Your task to perform on an android device: clear history in the chrome app Image 0: 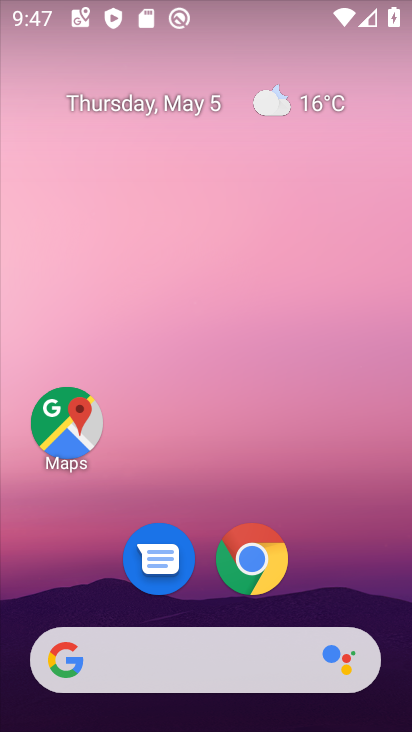
Step 0: click (240, 561)
Your task to perform on an android device: clear history in the chrome app Image 1: 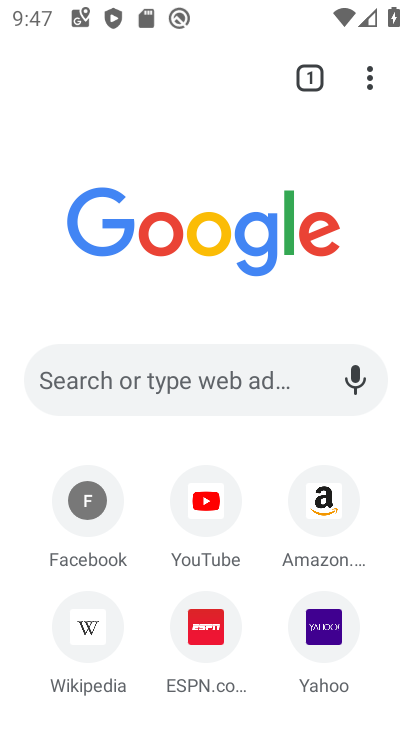
Step 1: click (375, 95)
Your task to perform on an android device: clear history in the chrome app Image 2: 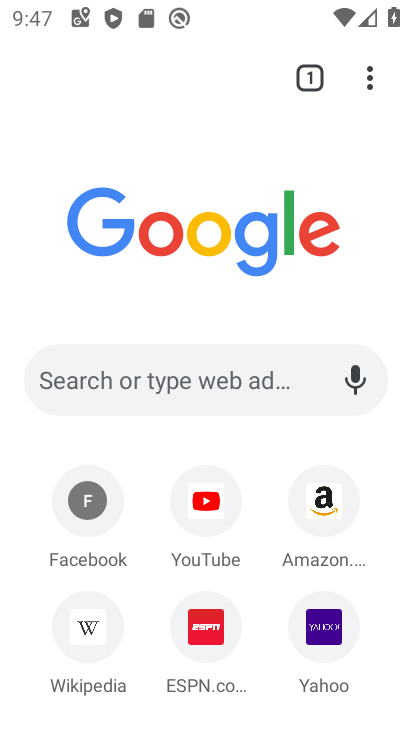
Step 2: click (359, 72)
Your task to perform on an android device: clear history in the chrome app Image 3: 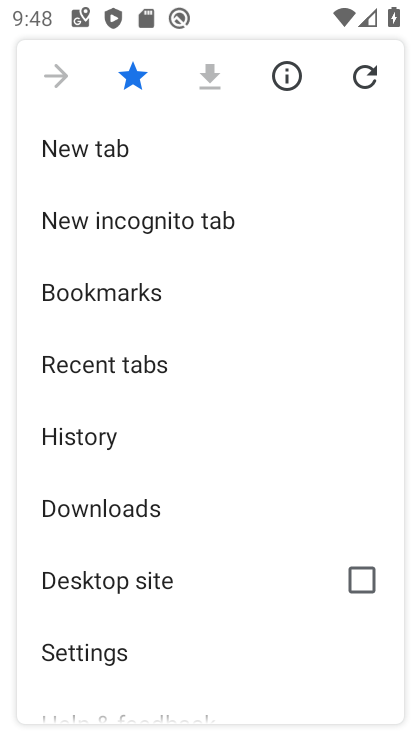
Step 3: click (97, 442)
Your task to perform on an android device: clear history in the chrome app Image 4: 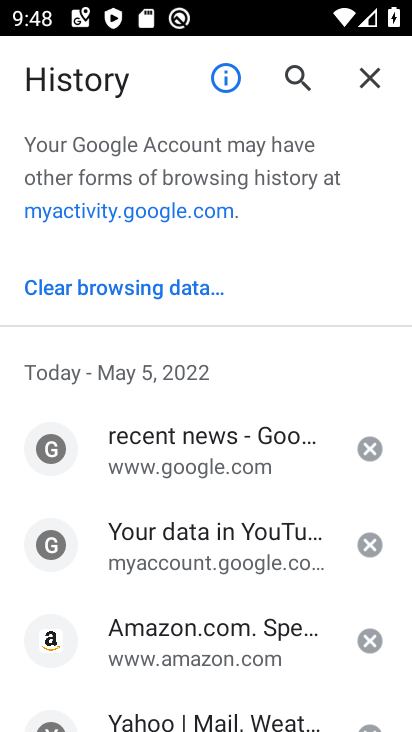
Step 4: click (86, 288)
Your task to perform on an android device: clear history in the chrome app Image 5: 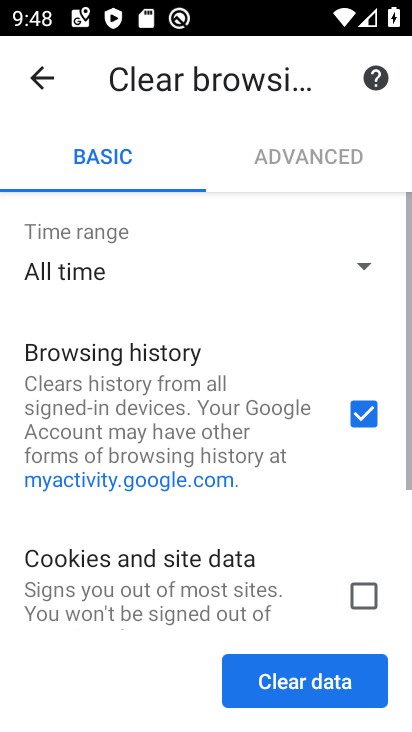
Step 5: drag from (278, 521) to (296, 173)
Your task to perform on an android device: clear history in the chrome app Image 6: 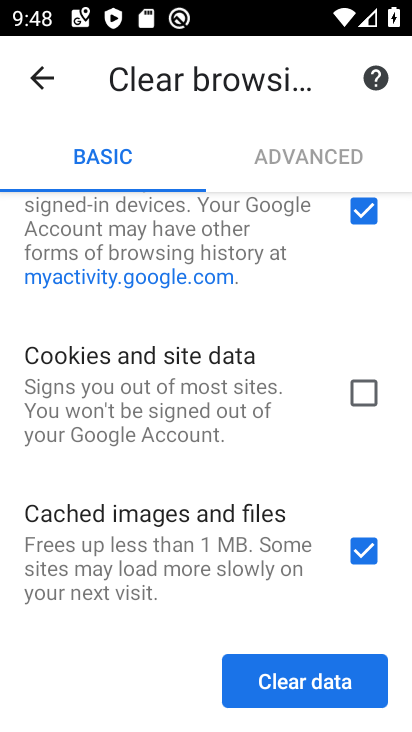
Step 6: click (340, 559)
Your task to perform on an android device: clear history in the chrome app Image 7: 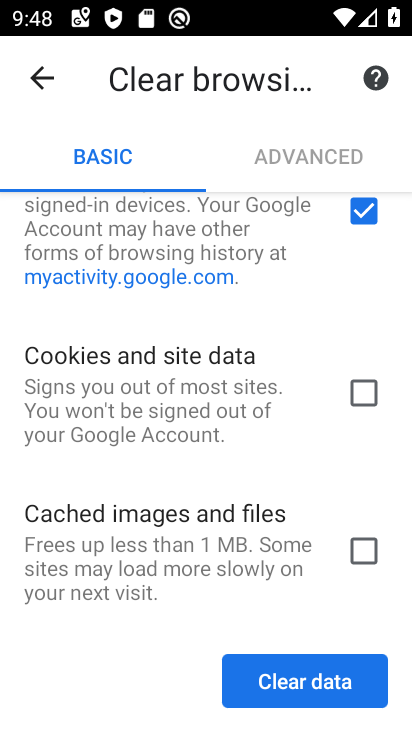
Step 7: click (294, 689)
Your task to perform on an android device: clear history in the chrome app Image 8: 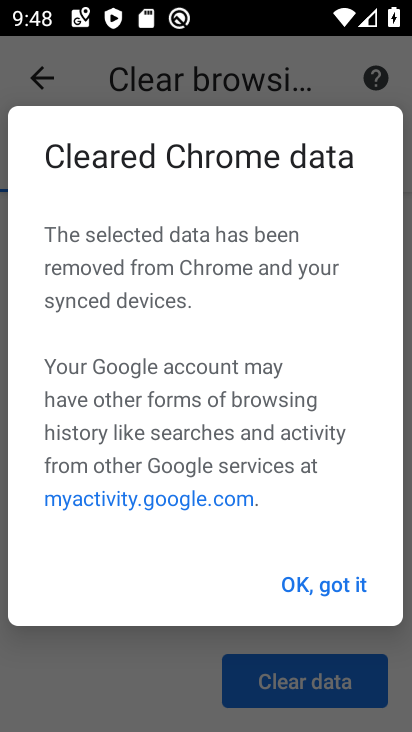
Step 8: click (323, 597)
Your task to perform on an android device: clear history in the chrome app Image 9: 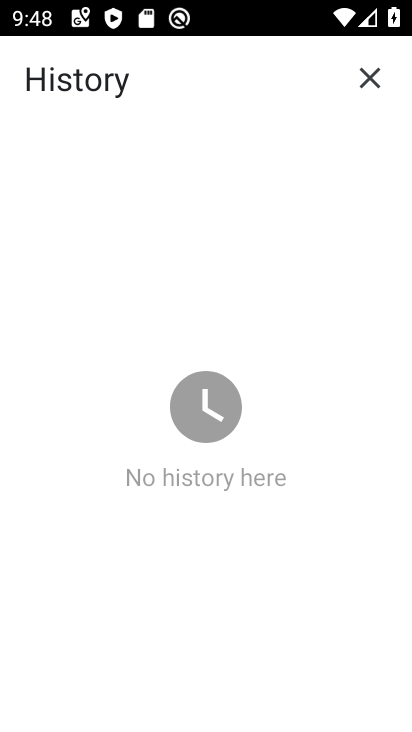
Step 9: task complete